Your task to perform on an android device: refresh tabs in the chrome app Image 0: 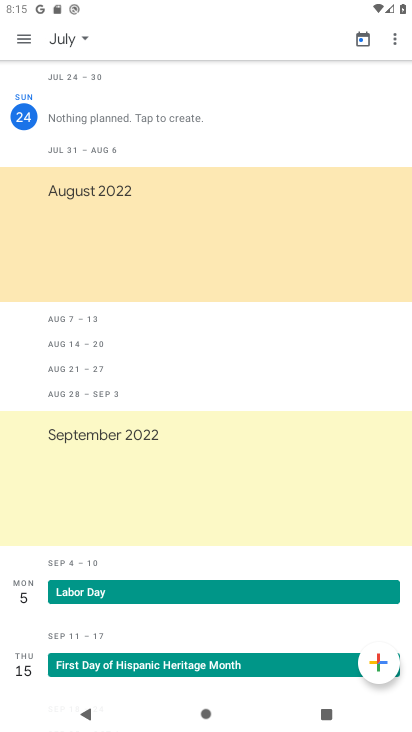
Step 0: press home button
Your task to perform on an android device: refresh tabs in the chrome app Image 1: 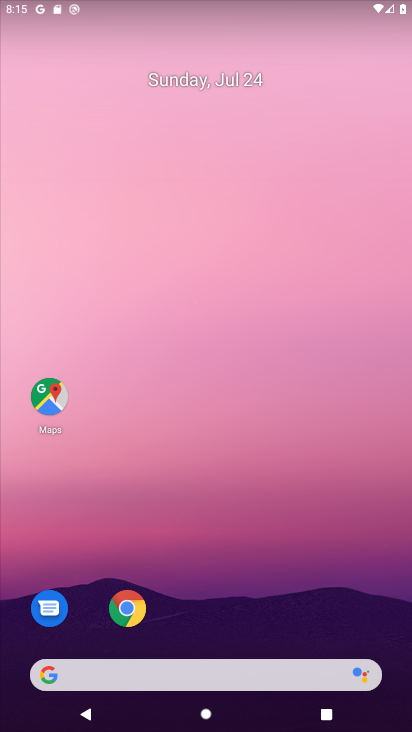
Step 1: click (135, 598)
Your task to perform on an android device: refresh tabs in the chrome app Image 2: 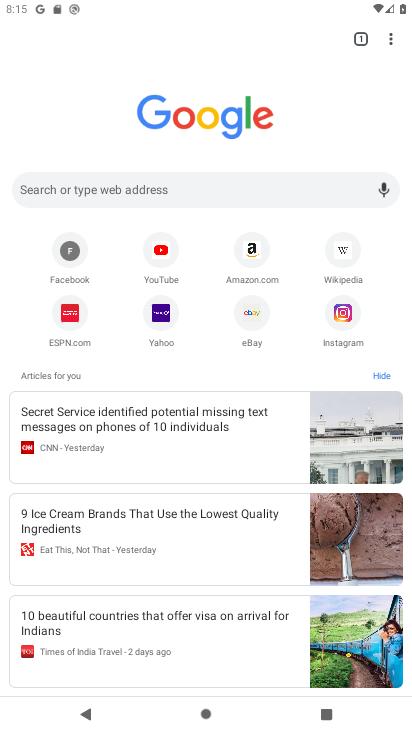
Step 2: click (396, 33)
Your task to perform on an android device: refresh tabs in the chrome app Image 3: 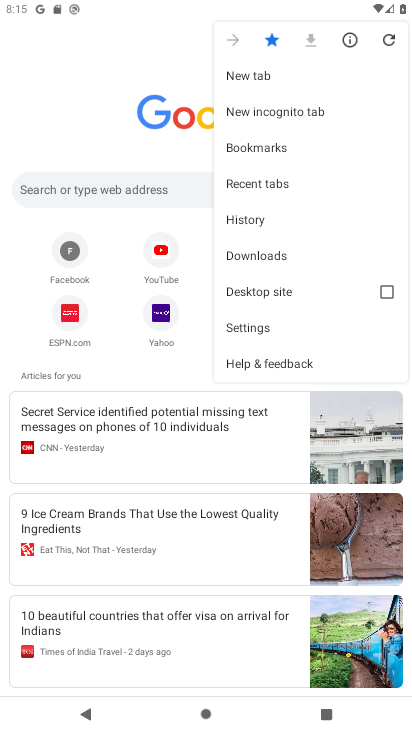
Step 3: click (382, 39)
Your task to perform on an android device: refresh tabs in the chrome app Image 4: 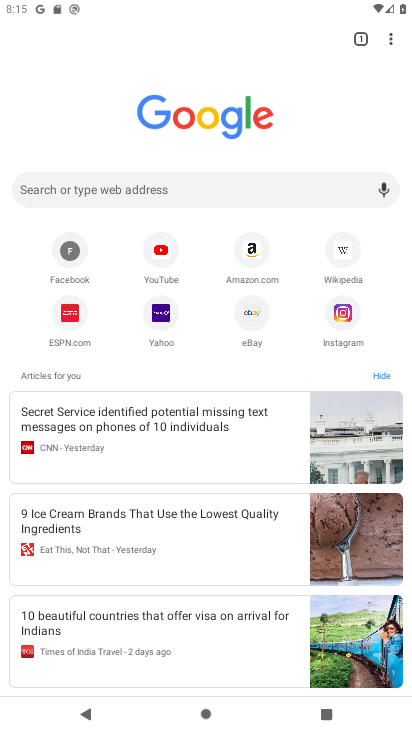
Step 4: task complete